Your task to perform on an android device: Go to Google Image 0: 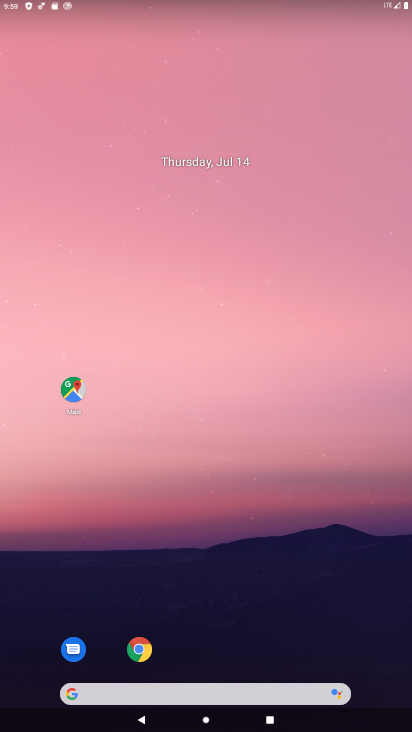
Step 0: drag from (197, 639) to (205, 228)
Your task to perform on an android device: Go to Google Image 1: 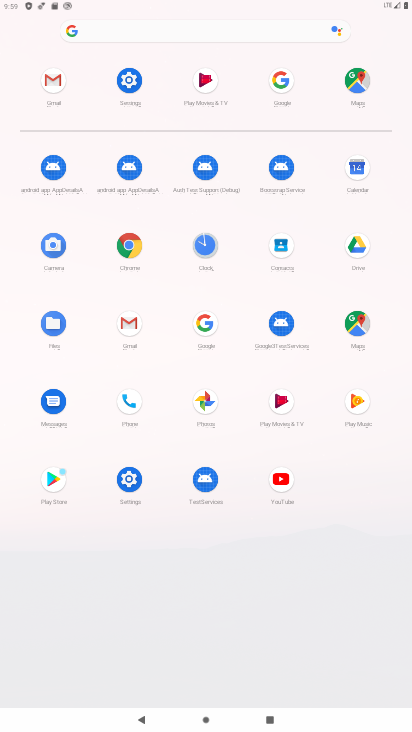
Step 1: click (279, 92)
Your task to perform on an android device: Go to Google Image 2: 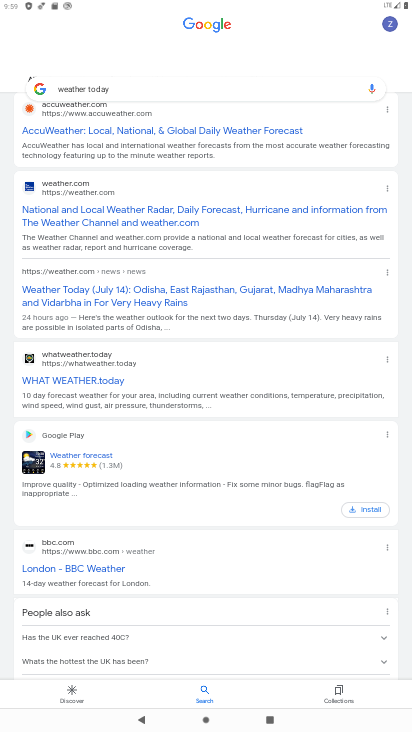
Step 2: task complete